Your task to perform on an android device: turn off data saver in the chrome app Image 0: 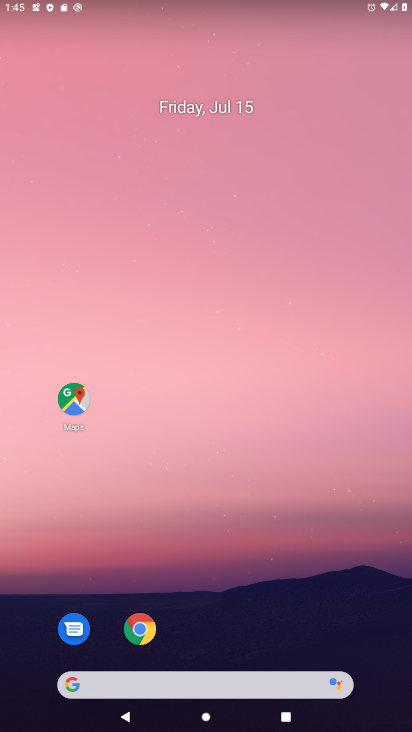
Step 0: drag from (309, 630) to (337, 171)
Your task to perform on an android device: turn off data saver in the chrome app Image 1: 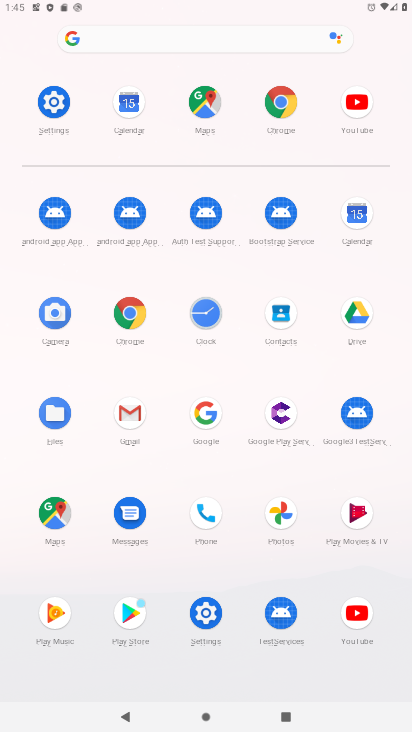
Step 1: click (286, 102)
Your task to perform on an android device: turn off data saver in the chrome app Image 2: 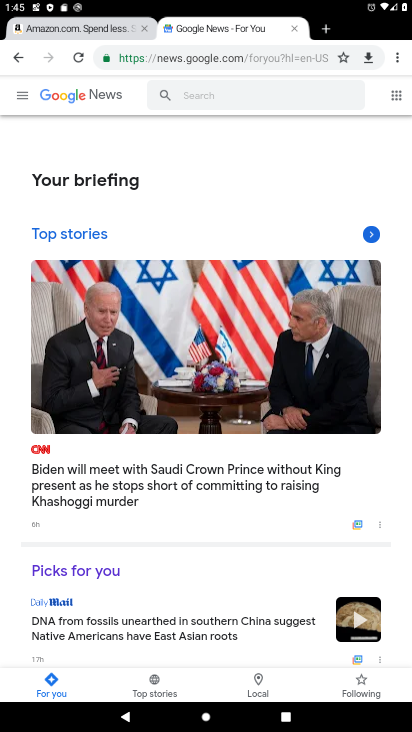
Step 2: drag from (401, 59) to (294, 416)
Your task to perform on an android device: turn off data saver in the chrome app Image 3: 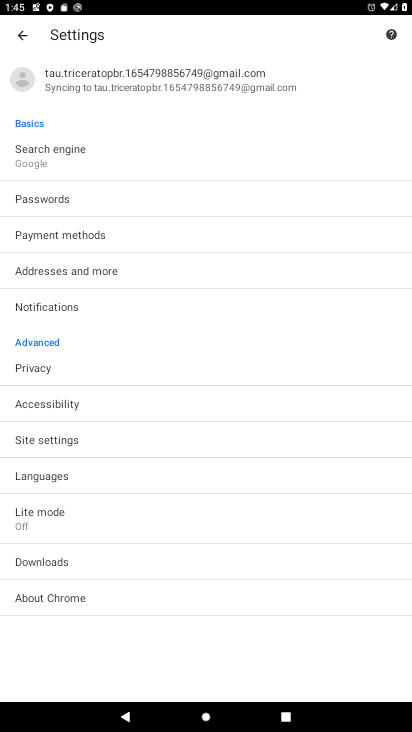
Step 3: click (61, 516)
Your task to perform on an android device: turn off data saver in the chrome app Image 4: 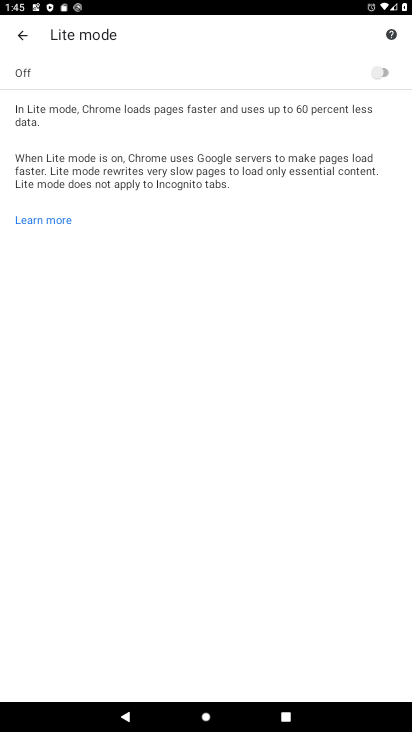
Step 4: task complete